Your task to perform on an android device: delete a single message in the gmail app Image 0: 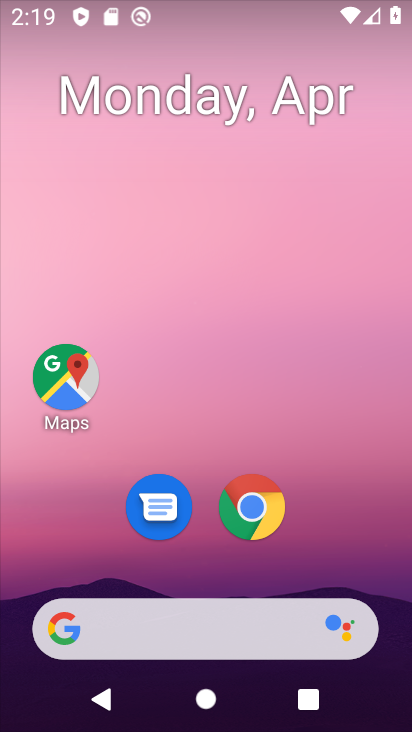
Step 0: drag from (402, 621) to (298, 28)
Your task to perform on an android device: delete a single message in the gmail app Image 1: 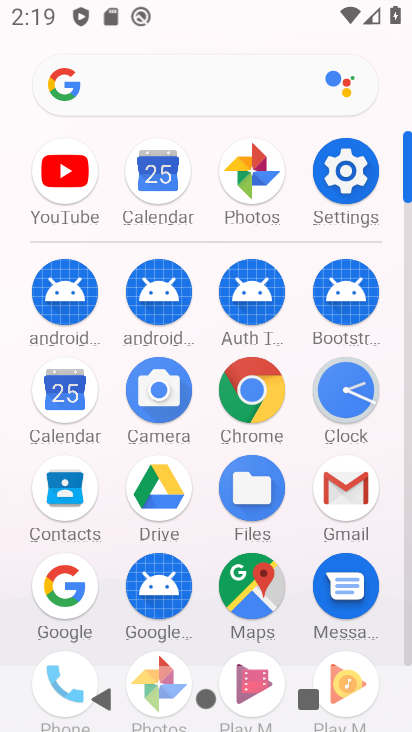
Step 1: click (409, 649)
Your task to perform on an android device: delete a single message in the gmail app Image 2: 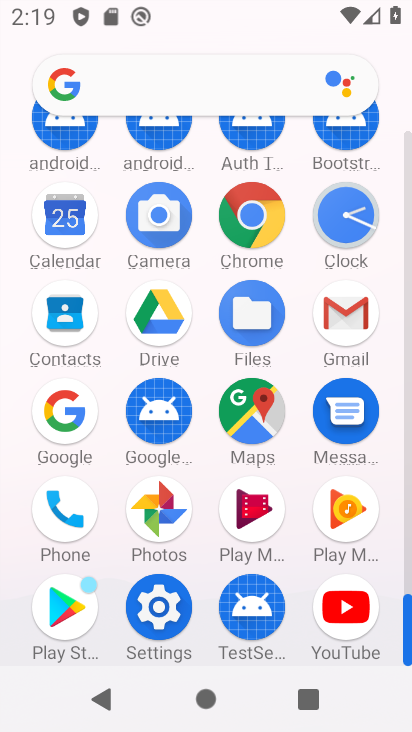
Step 2: click (343, 310)
Your task to perform on an android device: delete a single message in the gmail app Image 3: 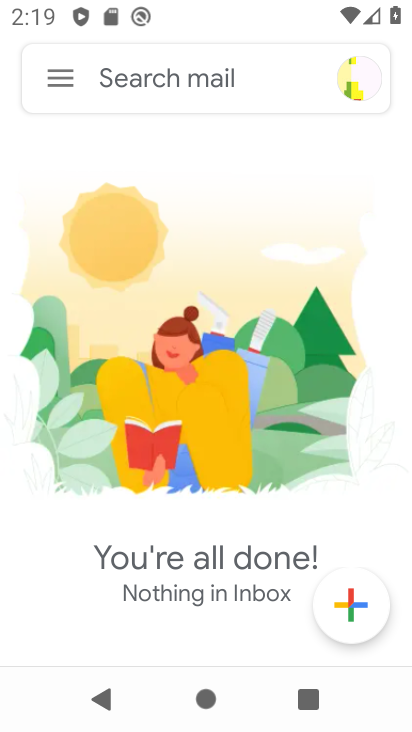
Step 3: click (63, 76)
Your task to perform on an android device: delete a single message in the gmail app Image 4: 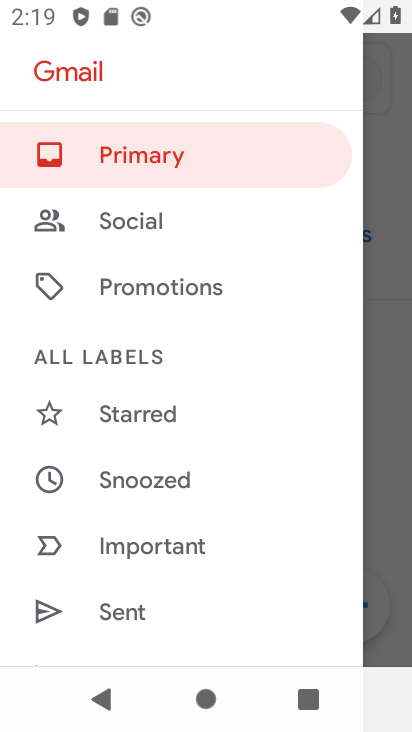
Step 4: drag from (254, 573) to (278, 192)
Your task to perform on an android device: delete a single message in the gmail app Image 5: 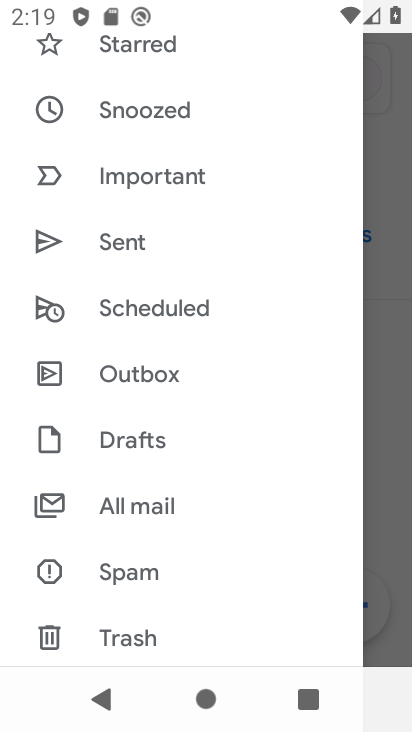
Step 5: click (133, 497)
Your task to perform on an android device: delete a single message in the gmail app Image 6: 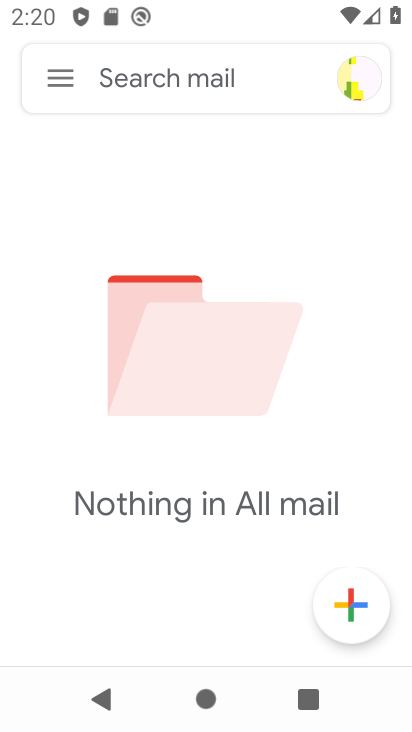
Step 6: task complete